Your task to perform on an android device: move a message to another label in the gmail app Image 0: 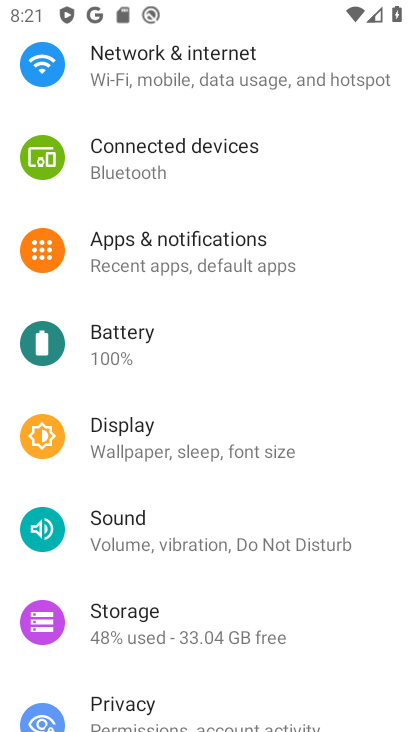
Step 0: press home button
Your task to perform on an android device: move a message to another label in the gmail app Image 1: 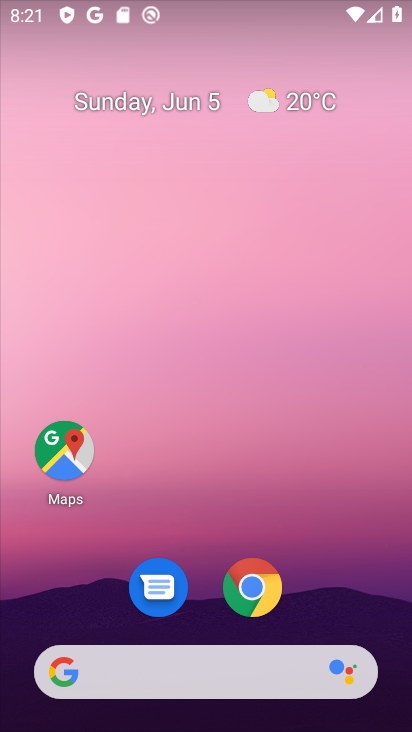
Step 1: drag from (340, 631) to (239, 112)
Your task to perform on an android device: move a message to another label in the gmail app Image 2: 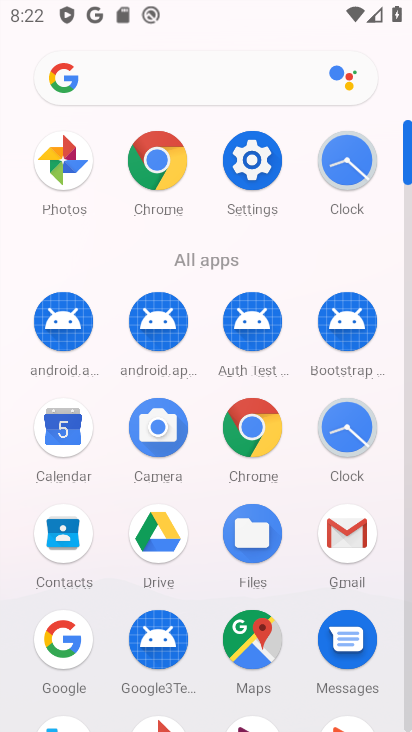
Step 2: click (332, 532)
Your task to perform on an android device: move a message to another label in the gmail app Image 3: 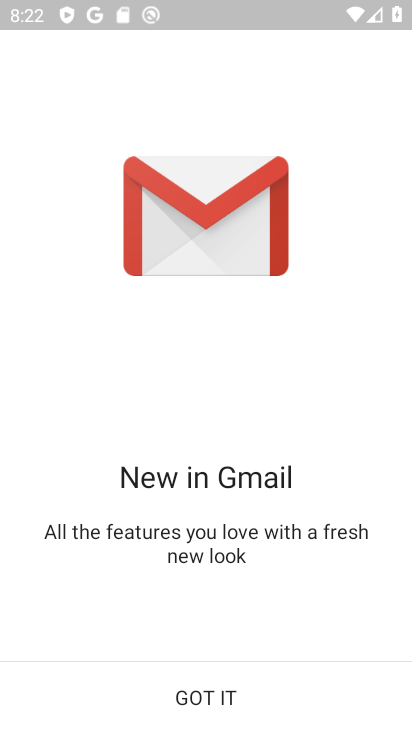
Step 3: click (207, 699)
Your task to perform on an android device: move a message to another label in the gmail app Image 4: 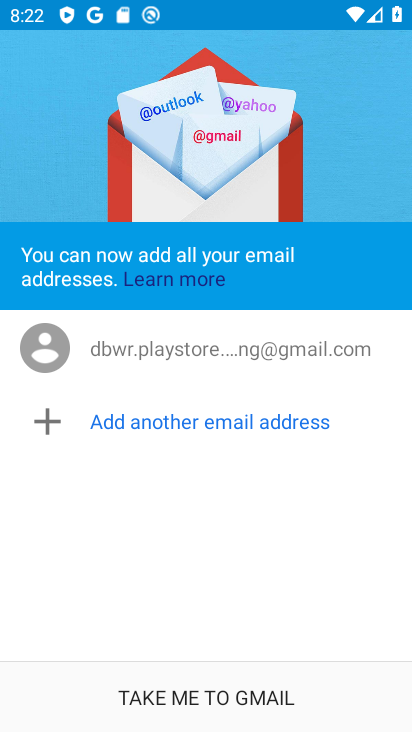
Step 4: click (199, 682)
Your task to perform on an android device: move a message to another label in the gmail app Image 5: 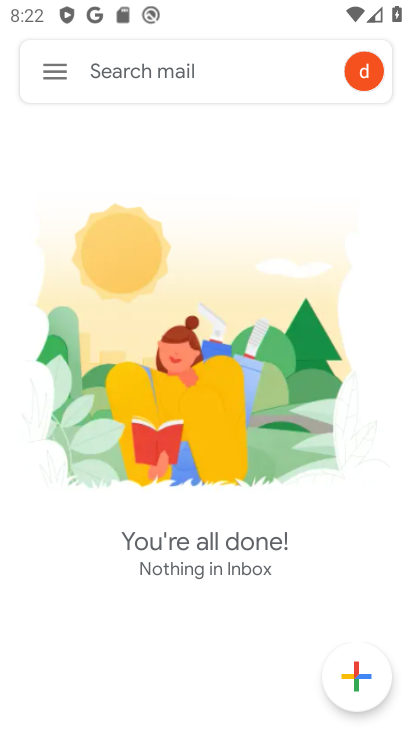
Step 5: click (57, 68)
Your task to perform on an android device: move a message to another label in the gmail app Image 6: 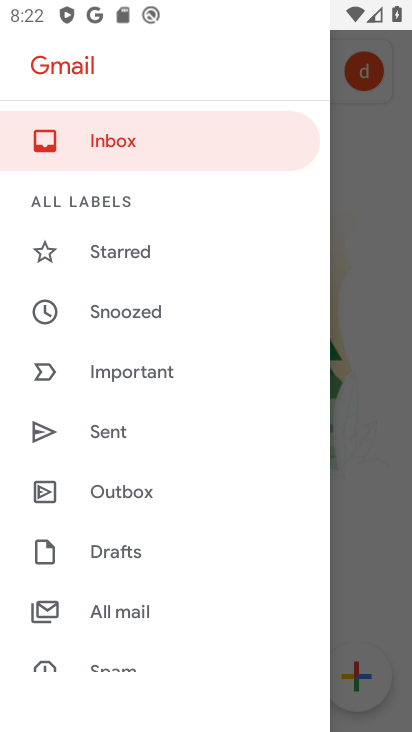
Step 6: click (120, 614)
Your task to perform on an android device: move a message to another label in the gmail app Image 7: 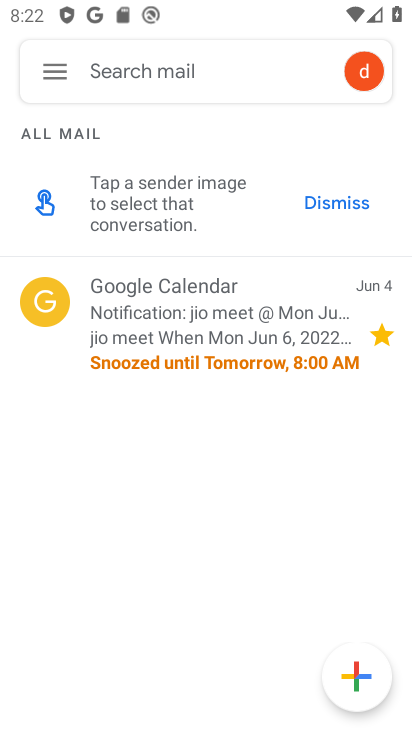
Step 7: click (380, 333)
Your task to perform on an android device: move a message to another label in the gmail app Image 8: 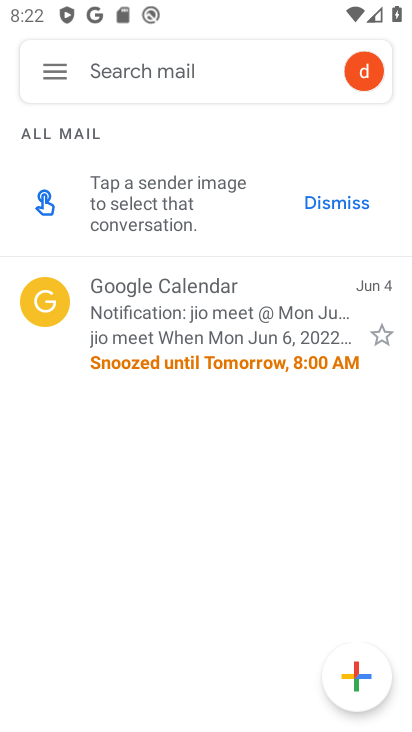
Step 8: click (329, 314)
Your task to perform on an android device: move a message to another label in the gmail app Image 9: 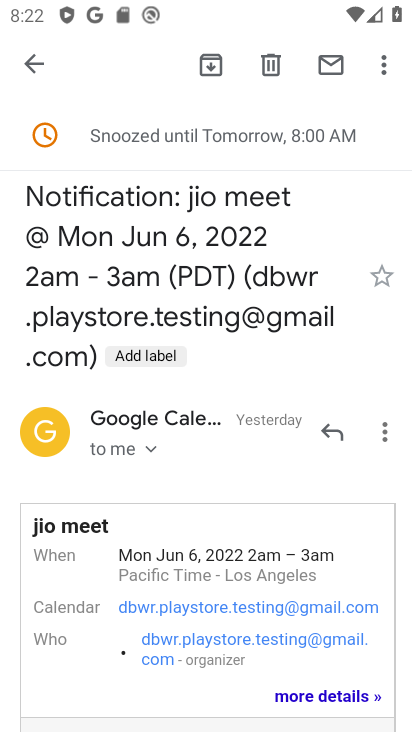
Step 9: click (376, 53)
Your task to perform on an android device: move a message to another label in the gmail app Image 10: 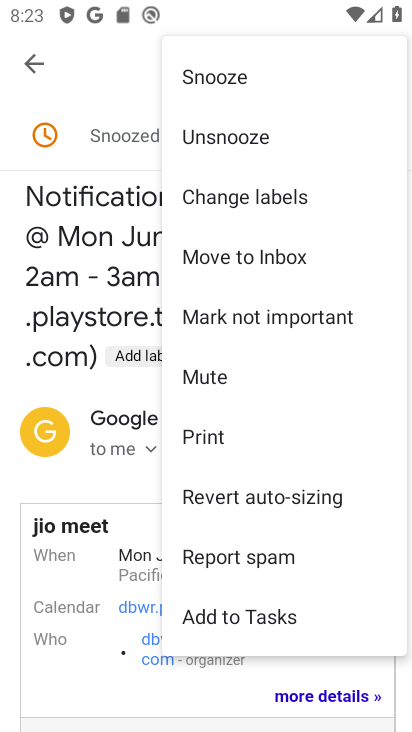
Step 10: click (18, 373)
Your task to perform on an android device: move a message to another label in the gmail app Image 11: 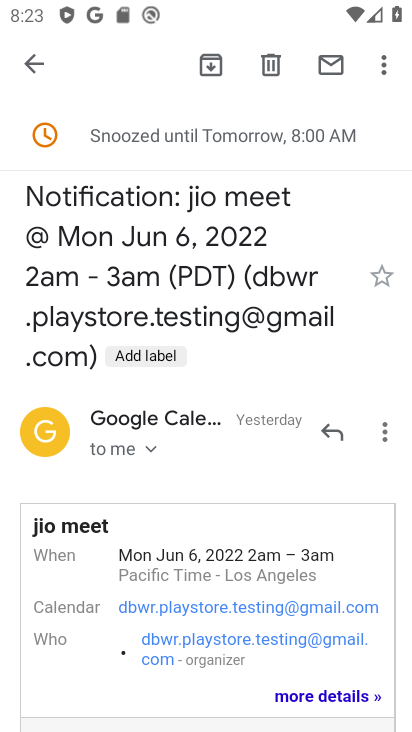
Step 11: click (127, 370)
Your task to perform on an android device: move a message to another label in the gmail app Image 12: 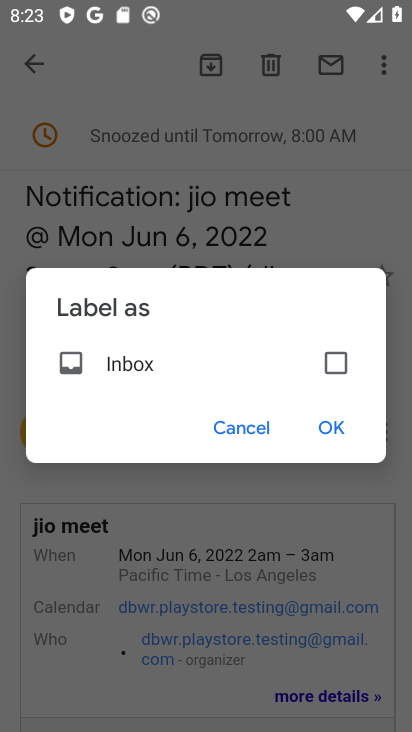
Step 12: click (130, 354)
Your task to perform on an android device: move a message to another label in the gmail app Image 13: 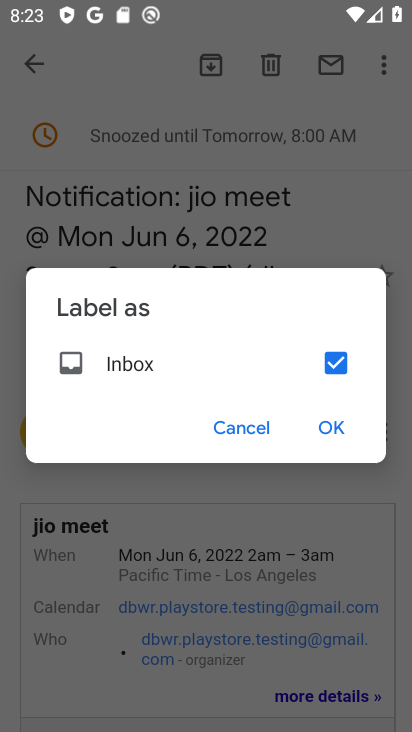
Step 13: click (332, 423)
Your task to perform on an android device: move a message to another label in the gmail app Image 14: 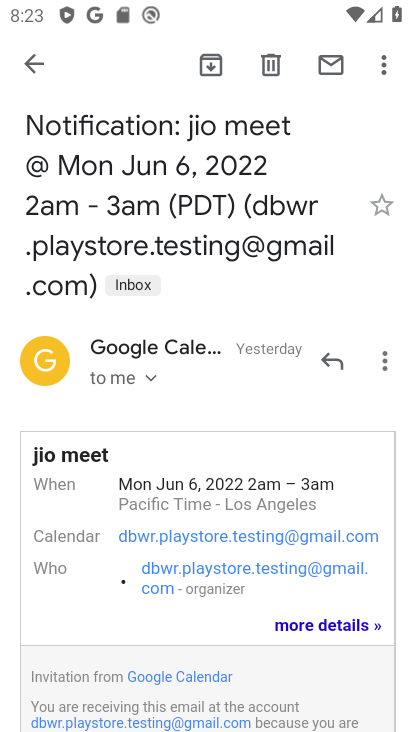
Step 14: task complete